Your task to perform on an android device: Open Amazon Image 0: 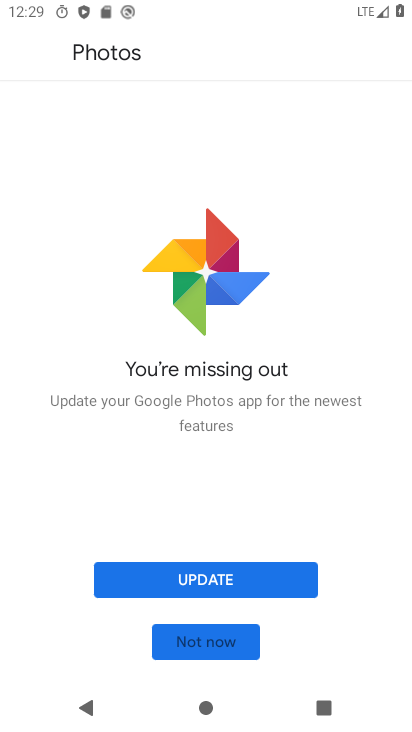
Step 0: press home button
Your task to perform on an android device: Open Amazon Image 1: 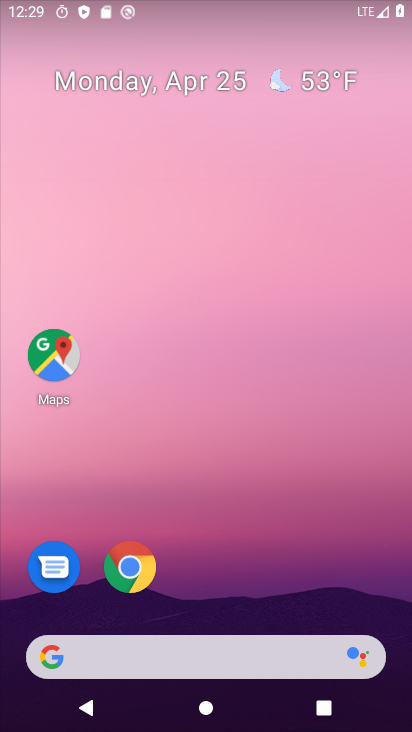
Step 1: click (144, 566)
Your task to perform on an android device: Open Amazon Image 2: 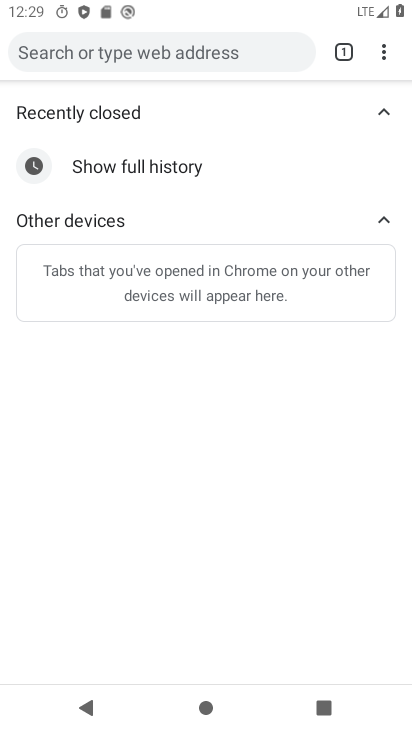
Step 2: drag from (383, 56) to (257, 170)
Your task to perform on an android device: Open Amazon Image 3: 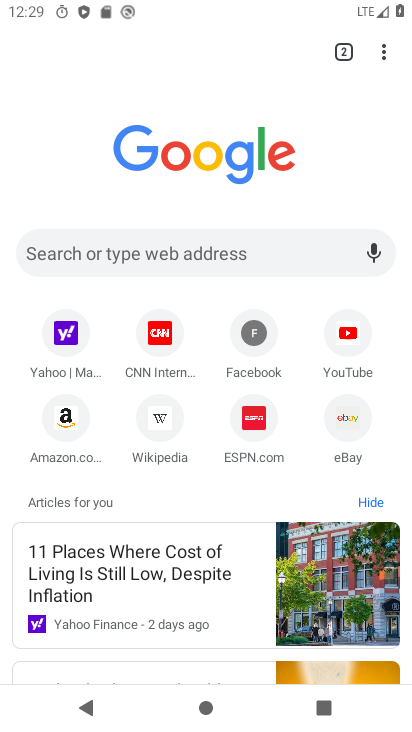
Step 3: click (63, 417)
Your task to perform on an android device: Open Amazon Image 4: 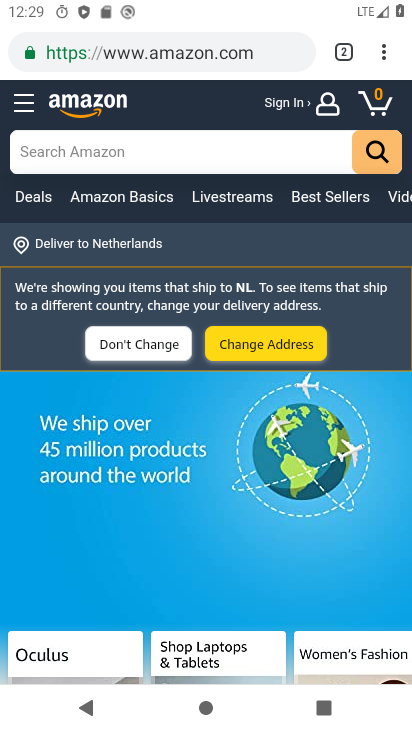
Step 4: task complete